Your task to perform on an android device: Open the calendar and show me this week's events? Image 0: 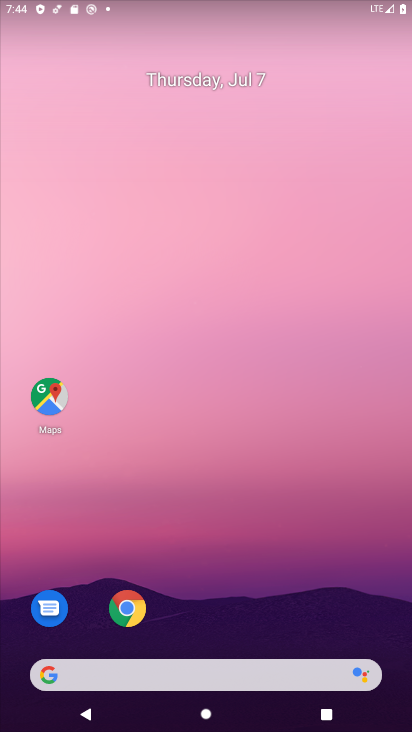
Step 0: drag from (364, 636) to (335, 148)
Your task to perform on an android device: Open the calendar and show me this week's events? Image 1: 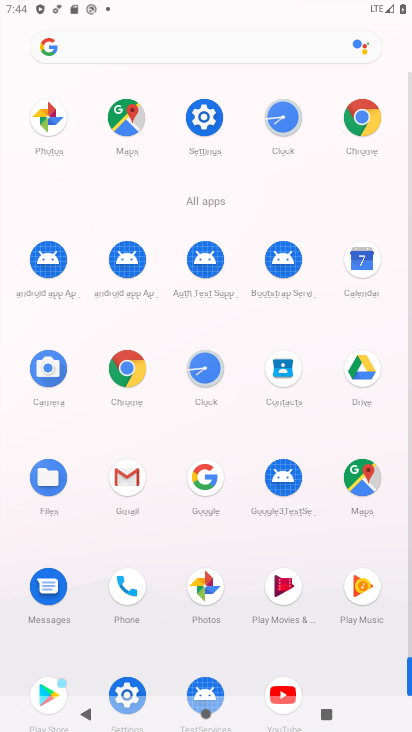
Step 1: click (362, 264)
Your task to perform on an android device: Open the calendar and show me this week's events? Image 2: 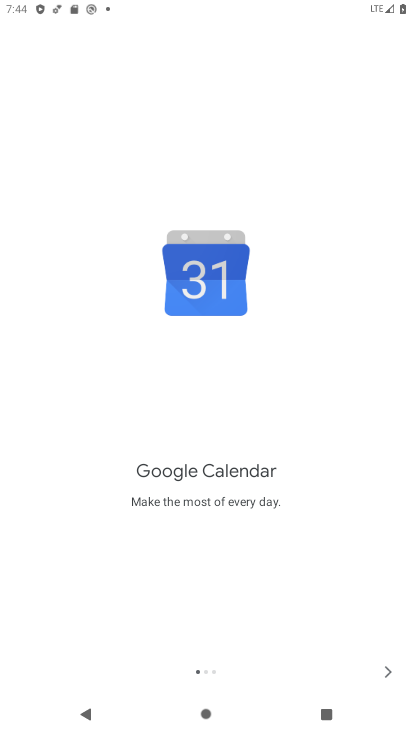
Step 2: click (387, 673)
Your task to perform on an android device: Open the calendar and show me this week's events? Image 3: 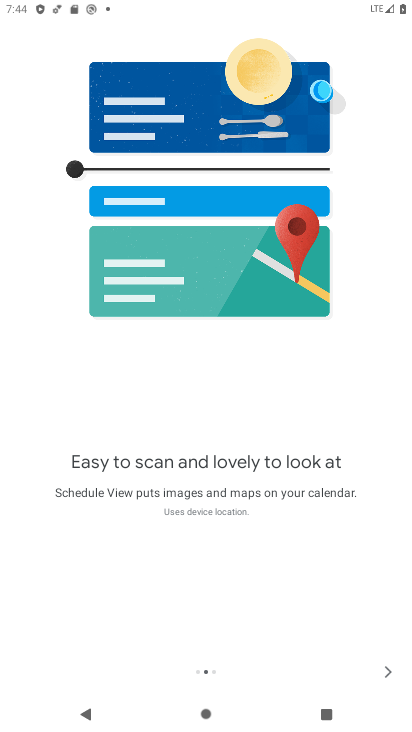
Step 3: click (387, 673)
Your task to perform on an android device: Open the calendar and show me this week's events? Image 4: 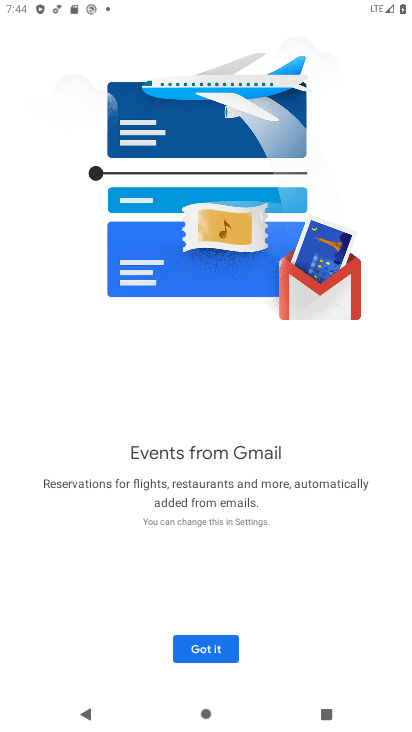
Step 4: click (205, 651)
Your task to perform on an android device: Open the calendar and show me this week's events? Image 5: 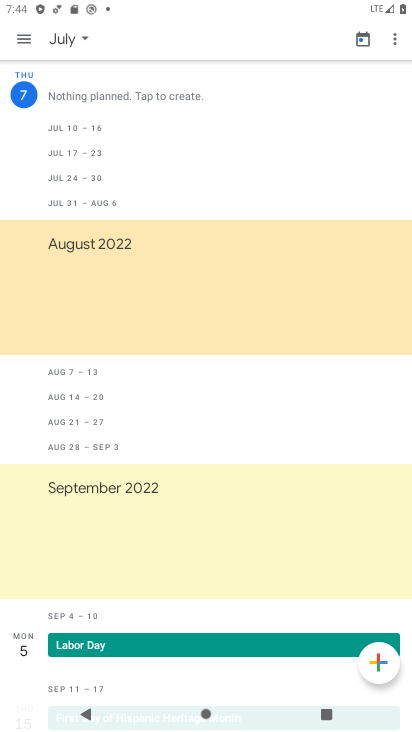
Step 5: click (27, 38)
Your task to perform on an android device: Open the calendar and show me this week's events? Image 6: 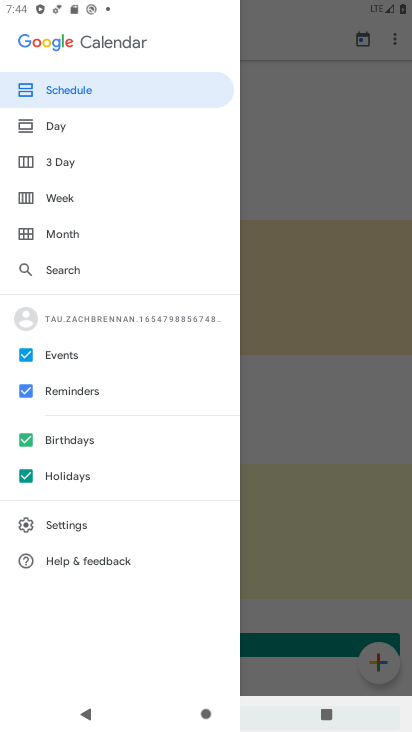
Step 6: click (61, 195)
Your task to perform on an android device: Open the calendar and show me this week's events? Image 7: 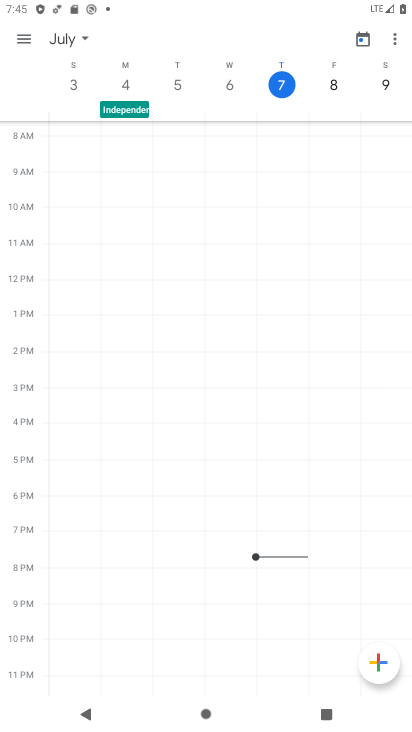
Step 7: task complete